Your task to perform on an android device: Open display settings Image 0: 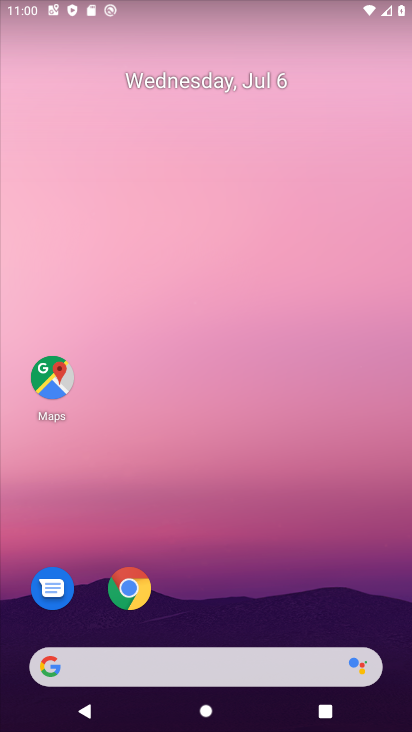
Step 0: drag from (269, 596) to (257, 282)
Your task to perform on an android device: Open display settings Image 1: 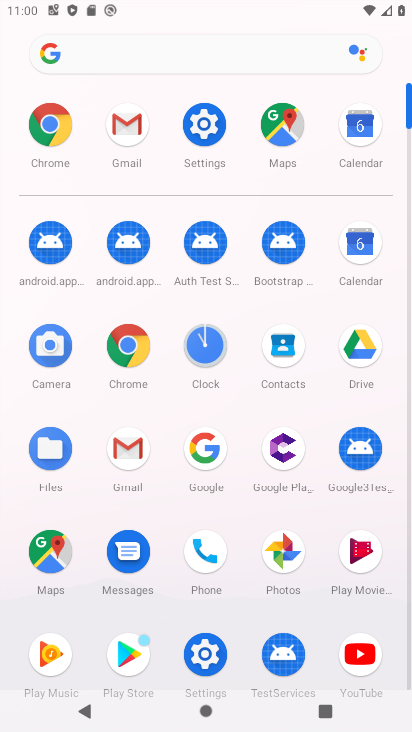
Step 1: click (214, 138)
Your task to perform on an android device: Open display settings Image 2: 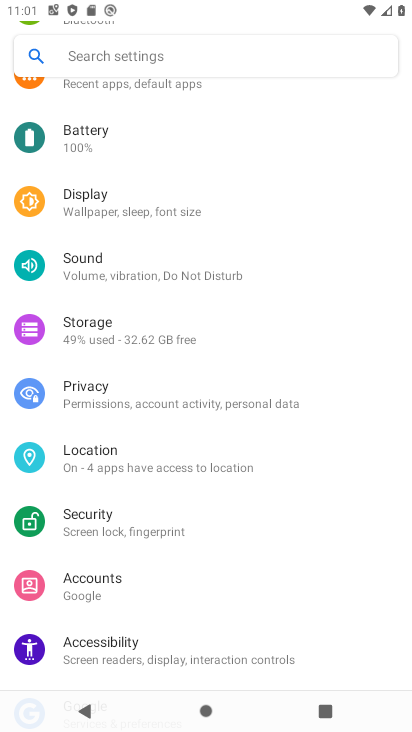
Step 2: click (101, 205)
Your task to perform on an android device: Open display settings Image 3: 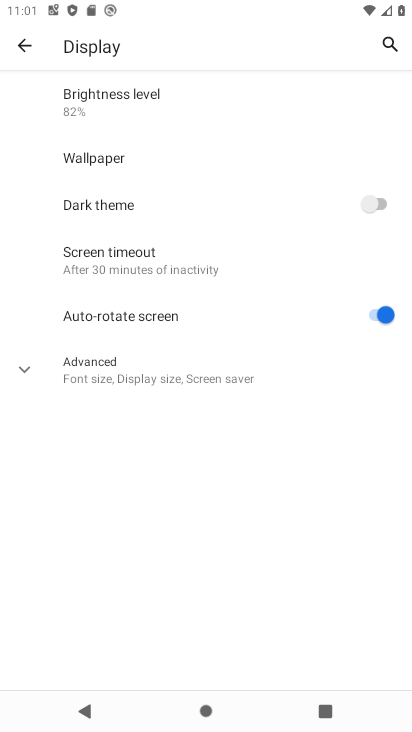
Step 3: task complete